Your task to perform on an android device: see sites visited before in the chrome app Image 0: 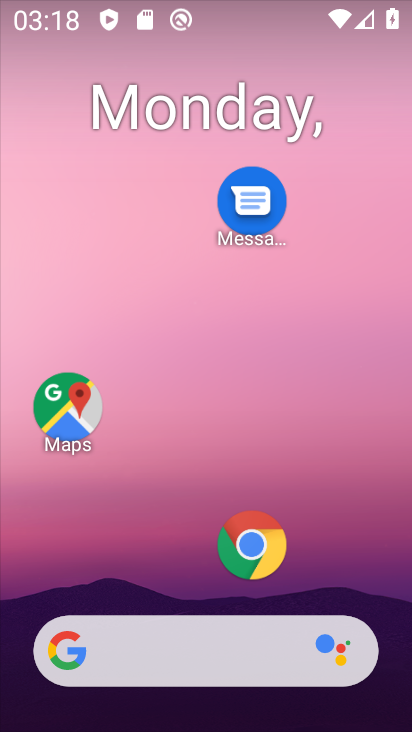
Step 0: click (241, 538)
Your task to perform on an android device: see sites visited before in the chrome app Image 1: 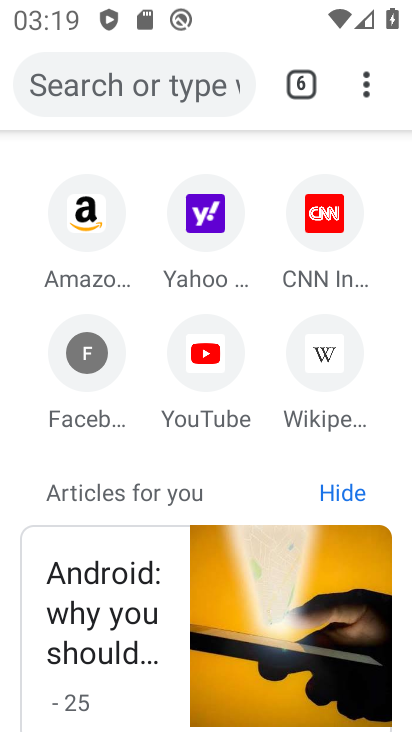
Step 1: task complete